Your task to perform on an android device: open the mobile data screen to see how much data has been used Image 0: 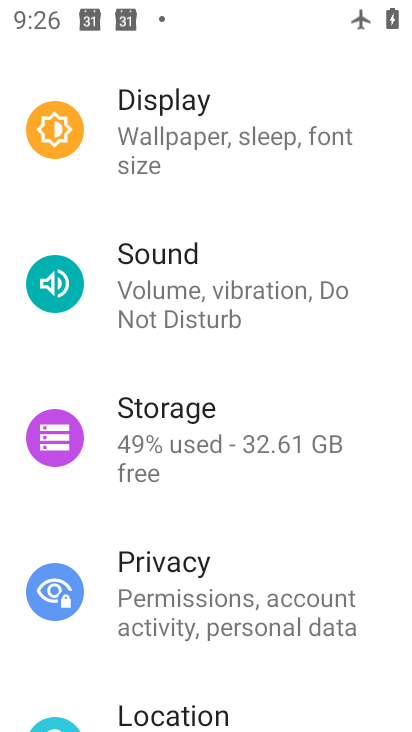
Step 0: drag from (119, 184) to (162, 587)
Your task to perform on an android device: open the mobile data screen to see how much data has been used Image 1: 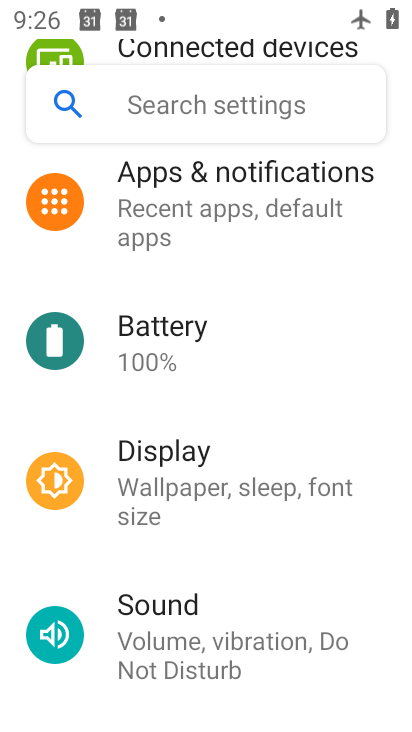
Step 1: drag from (276, 251) to (287, 662)
Your task to perform on an android device: open the mobile data screen to see how much data has been used Image 2: 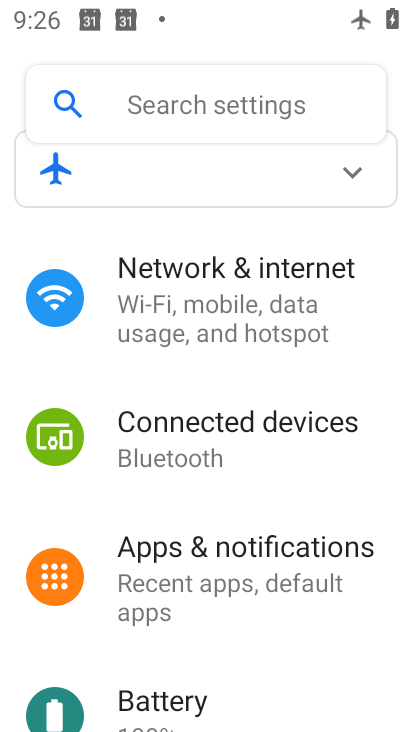
Step 2: click (222, 293)
Your task to perform on an android device: open the mobile data screen to see how much data has been used Image 3: 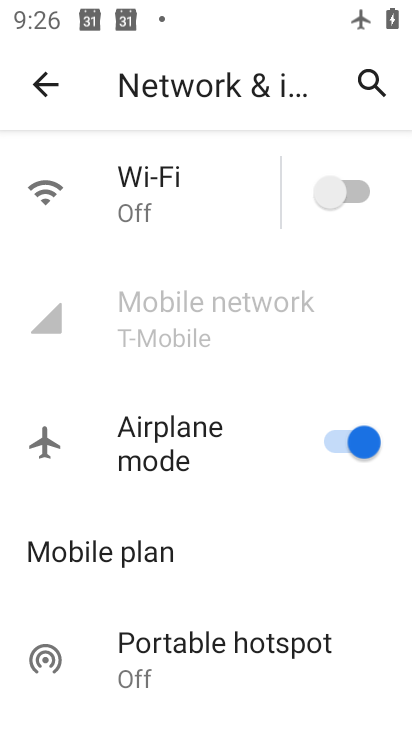
Step 3: task complete